Your task to perform on an android device: Open Youtube and go to the subscriptions tab Image 0: 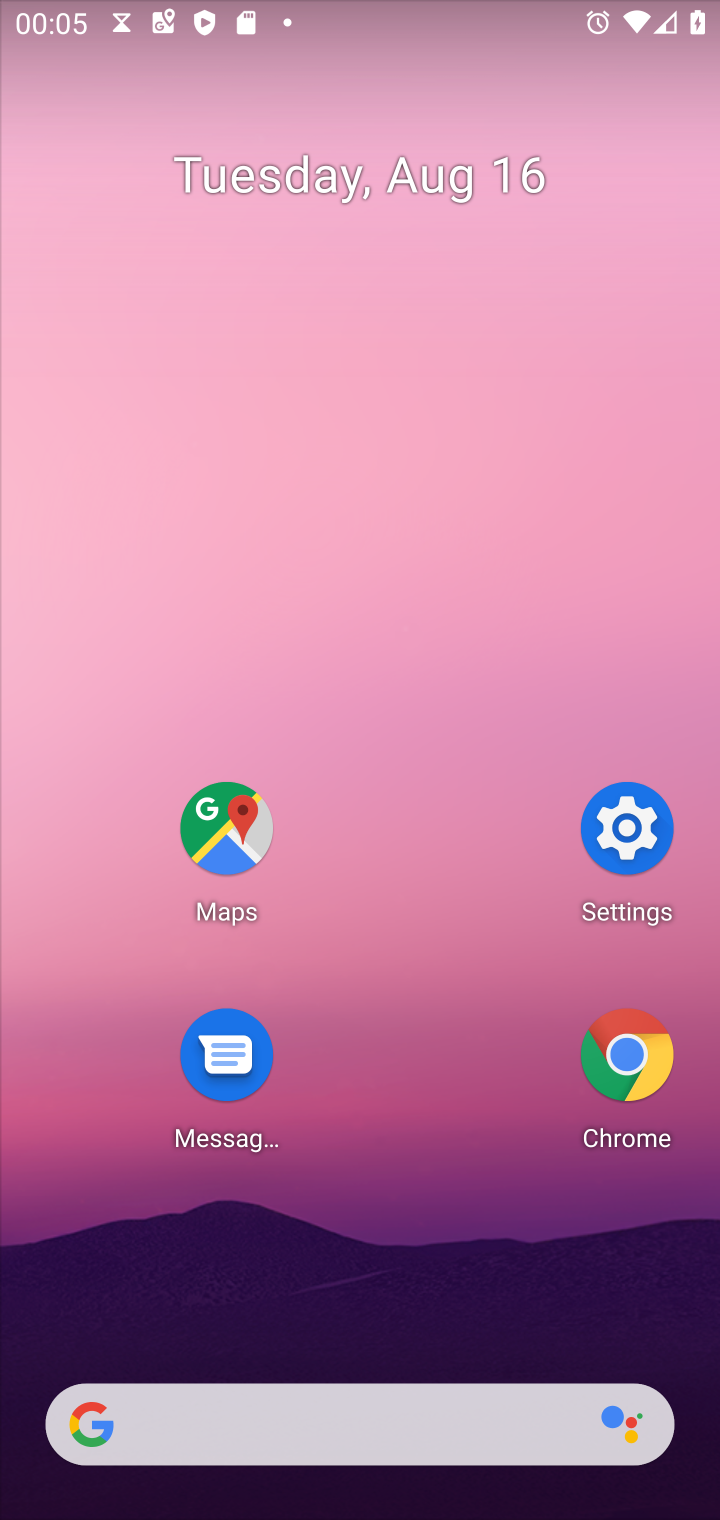
Step 0: press home button
Your task to perform on an android device: Open Youtube and go to the subscriptions tab Image 1: 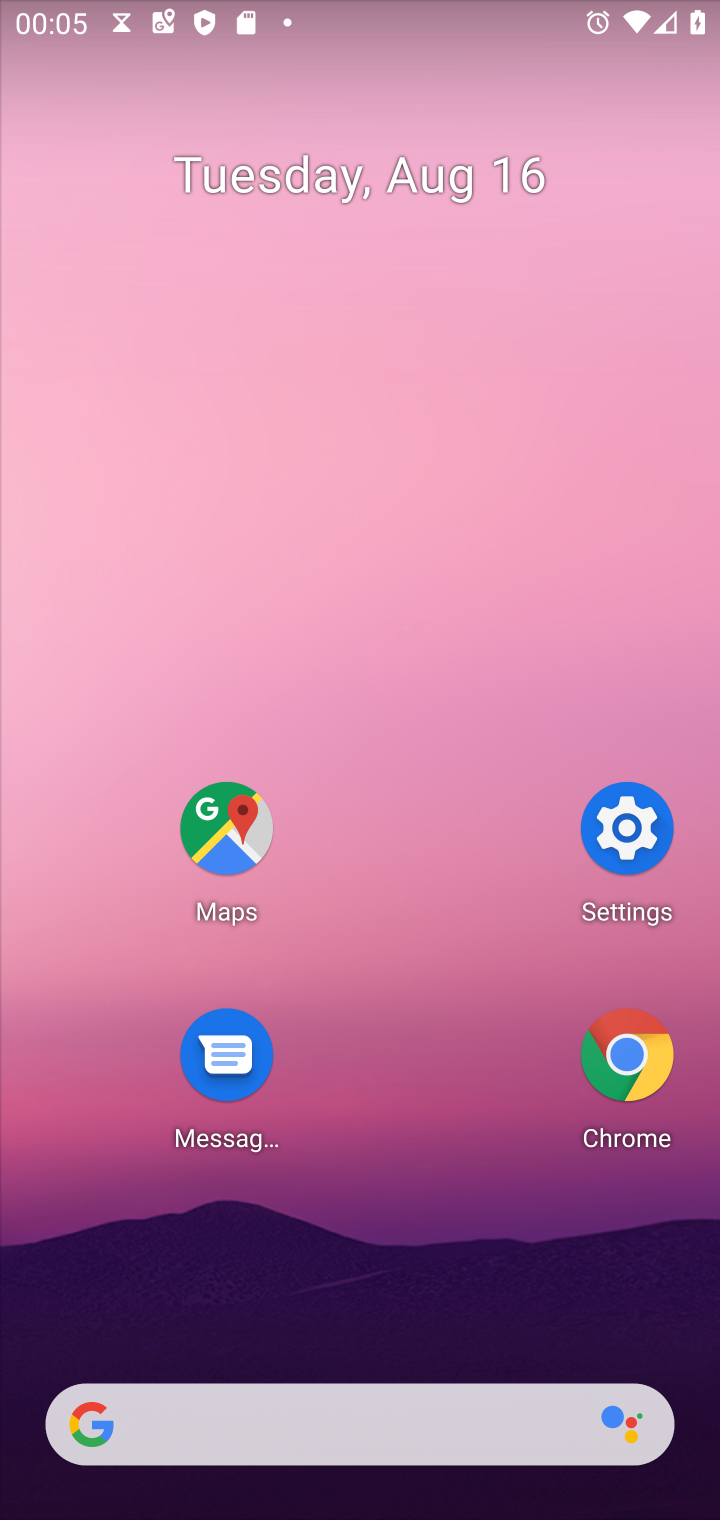
Step 1: drag from (288, 1318) to (535, 90)
Your task to perform on an android device: Open Youtube and go to the subscriptions tab Image 2: 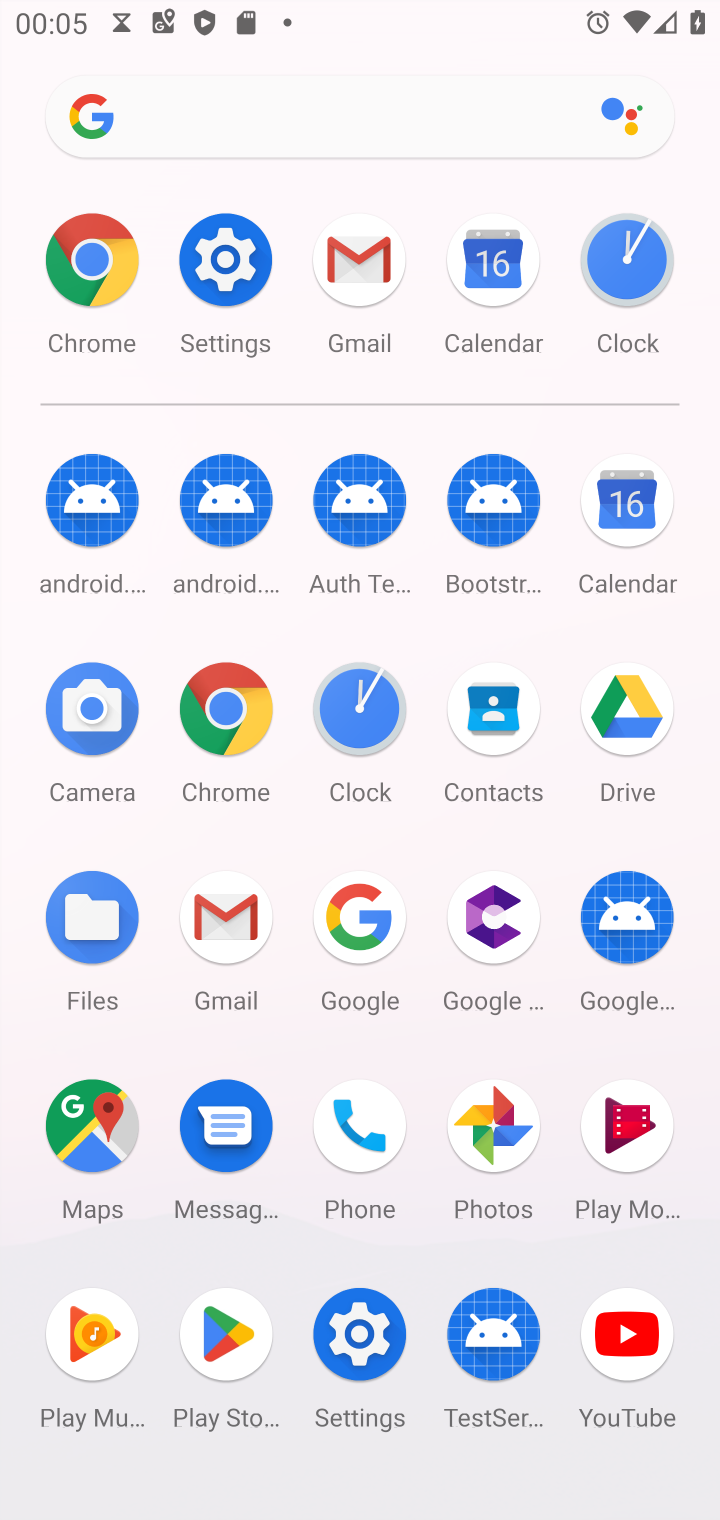
Step 2: click (616, 1324)
Your task to perform on an android device: Open Youtube and go to the subscriptions tab Image 3: 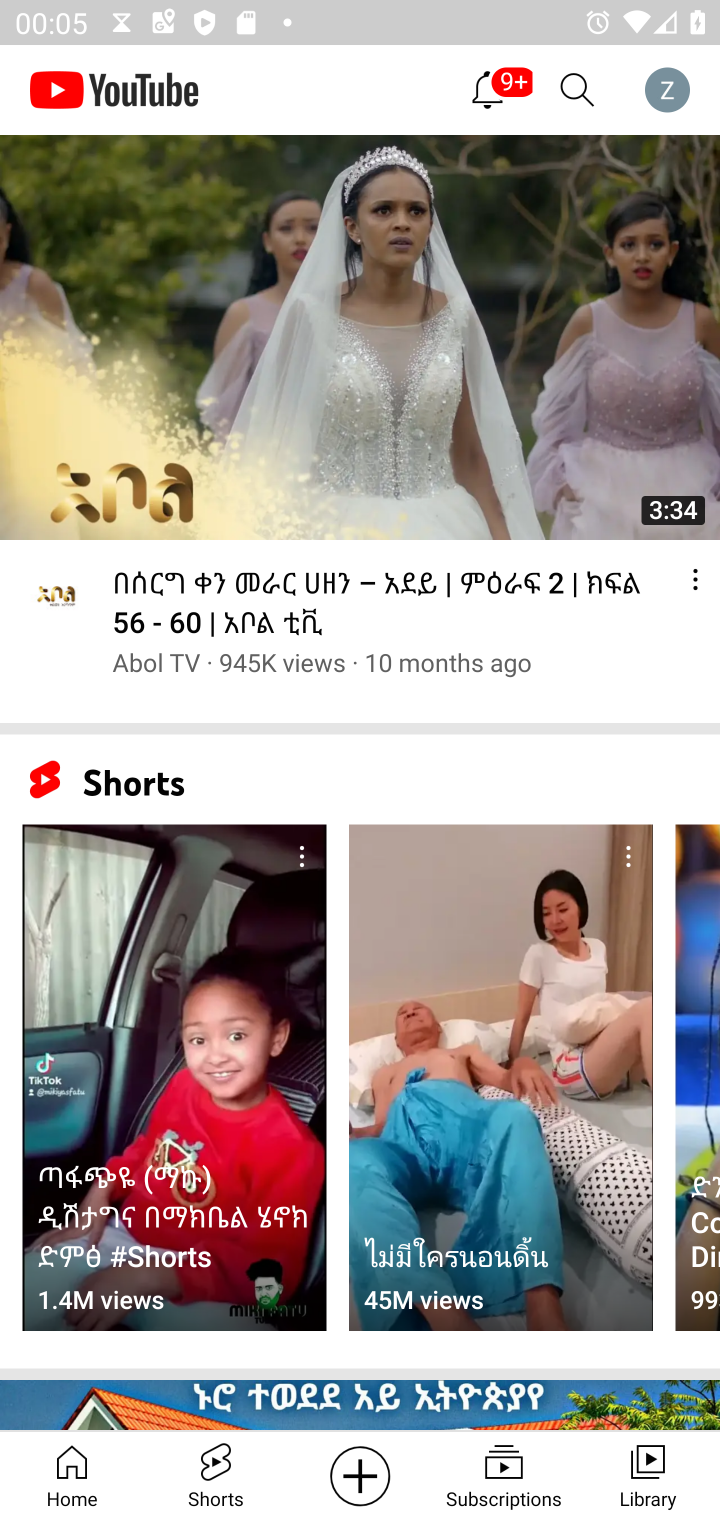
Step 3: click (490, 1464)
Your task to perform on an android device: Open Youtube and go to the subscriptions tab Image 4: 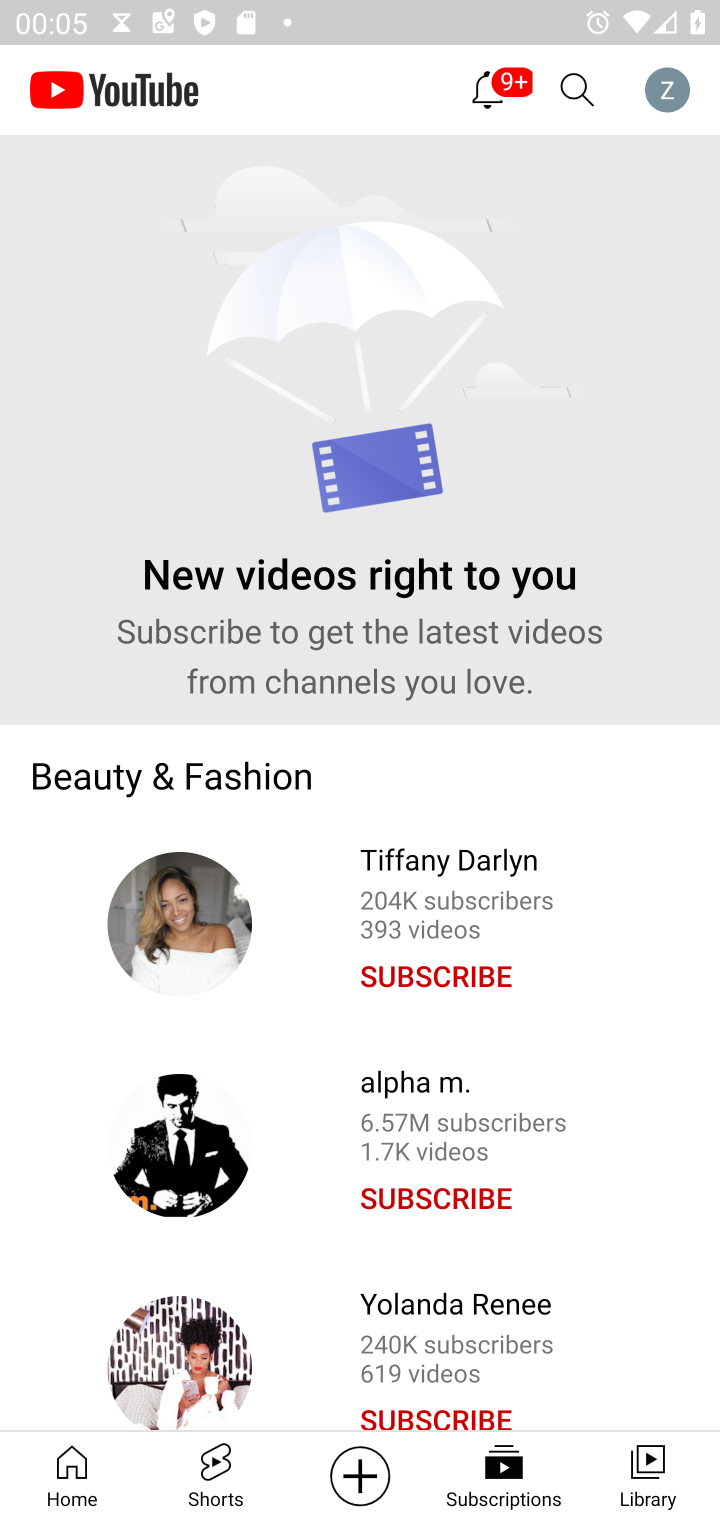
Step 4: task complete